Your task to perform on an android device: Search for Italian restaurants on Maps Image 0: 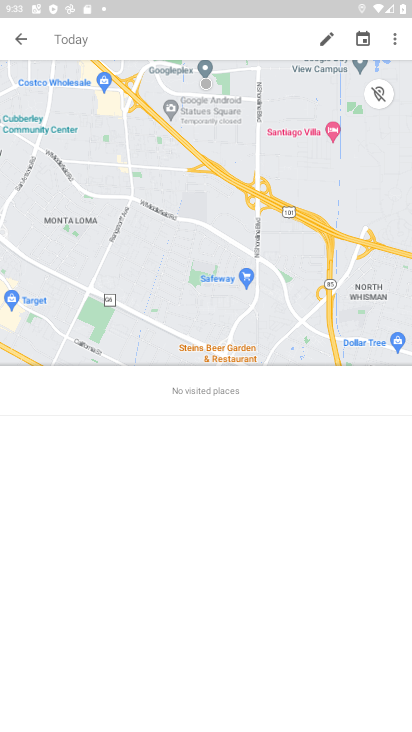
Step 0: drag from (257, 707) to (372, 0)
Your task to perform on an android device: Search for Italian restaurants on Maps Image 1: 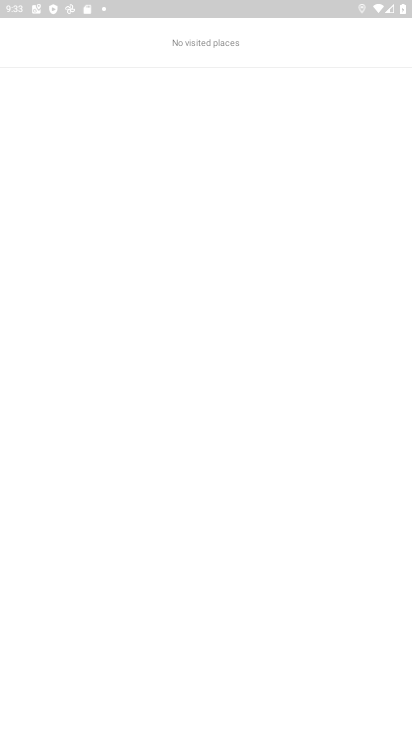
Step 1: press home button
Your task to perform on an android device: Search for Italian restaurants on Maps Image 2: 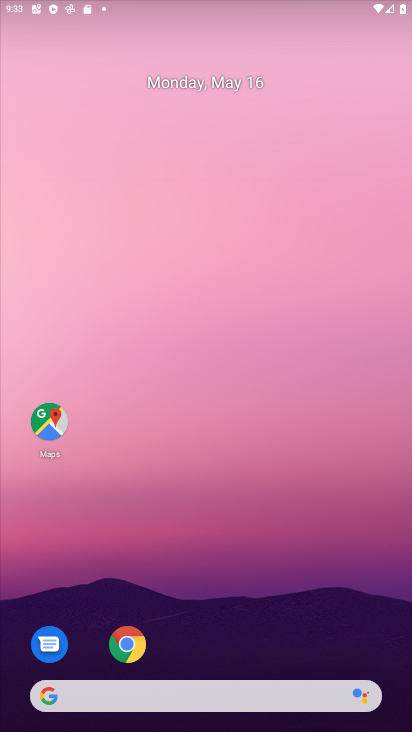
Step 2: click (49, 420)
Your task to perform on an android device: Search for Italian restaurants on Maps Image 3: 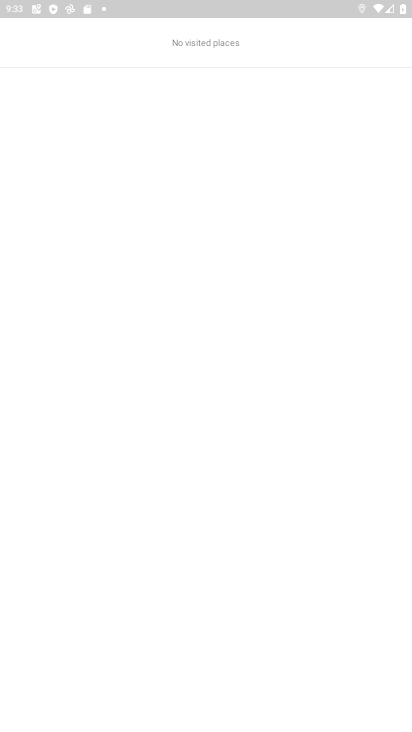
Step 3: press home button
Your task to perform on an android device: Search for Italian restaurants on Maps Image 4: 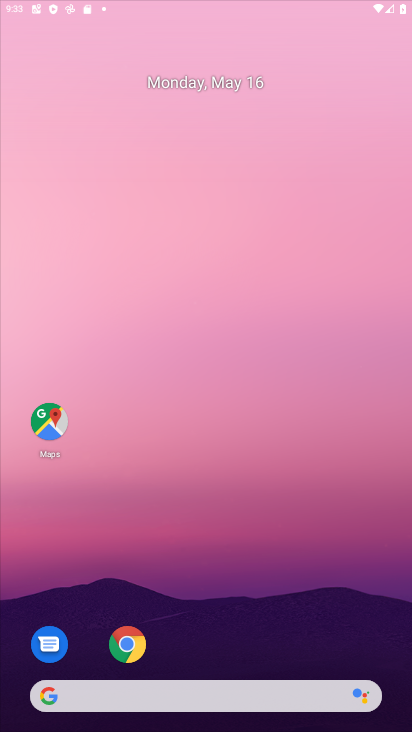
Step 4: press home button
Your task to perform on an android device: Search for Italian restaurants on Maps Image 5: 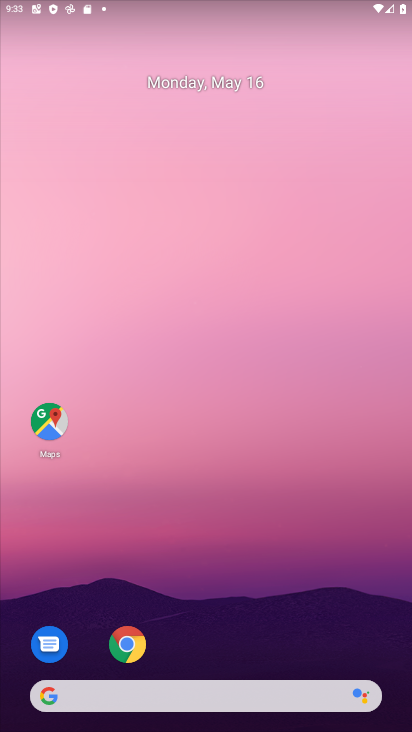
Step 5: click (55, 427)
Your task to perform on an android device: Search for Italian restaurants on Maps Image 6: 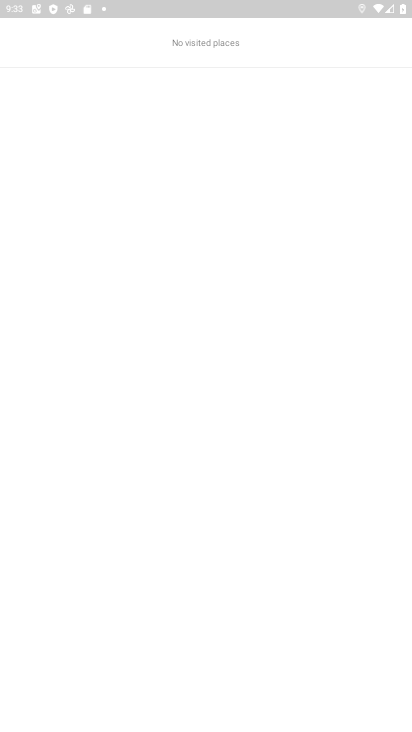
Step 6: press back button
Your task to perform on an android device: Search for Italian restaurants on Maps Image 7: 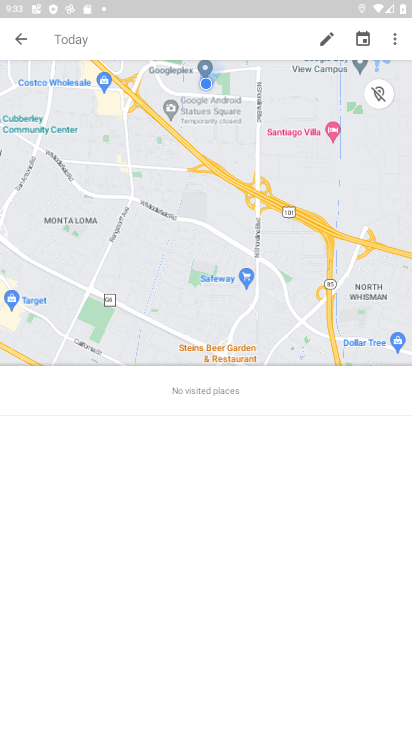
Step 7: press back button
Your task to perform on an android device: Search for Italian restaurants on Maps Image 8: 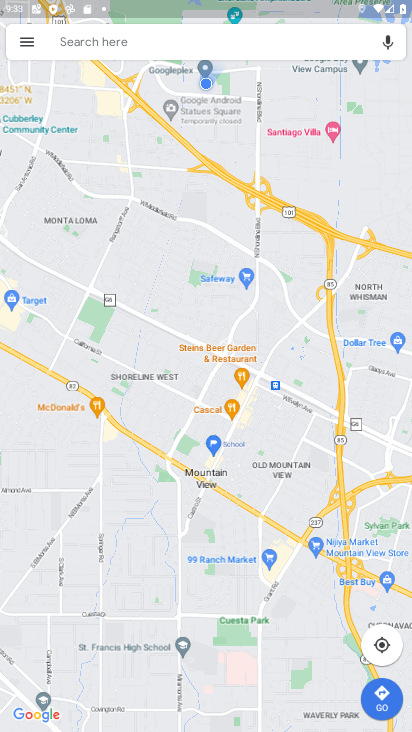
Step 8: click (132, 26)
Your task to perform on an android device: Search for Italian restaurants on Maps Image 9: 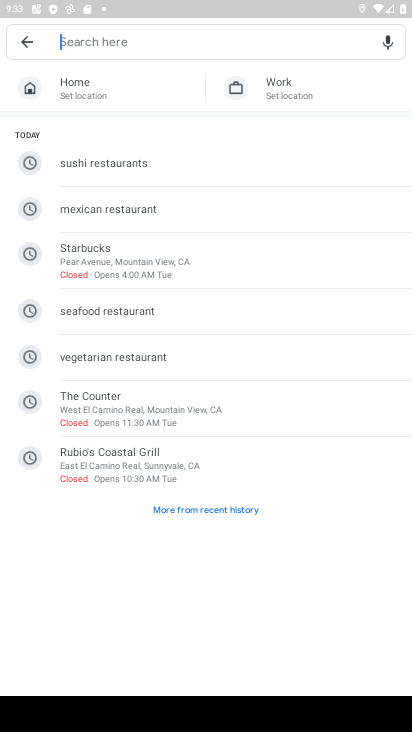
Step 9: type "italian restaurants"
Your task to perform on an android device: Search for Italian restaurants on Maps Image 10: 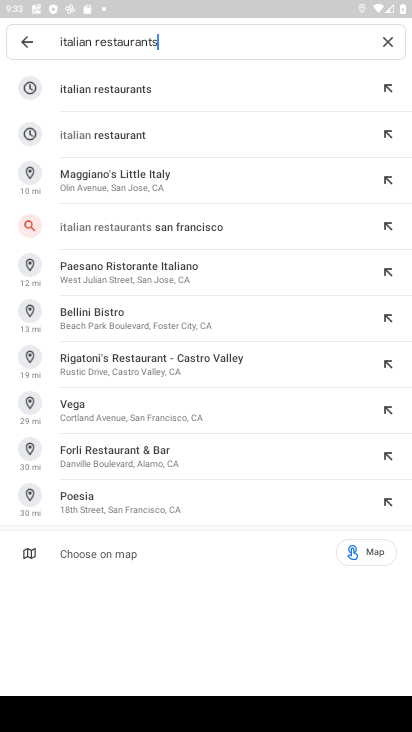
Step 10: click (203, 101)
Your task to perform on an android device: Search for Italian restaurants on Maps Image 11: 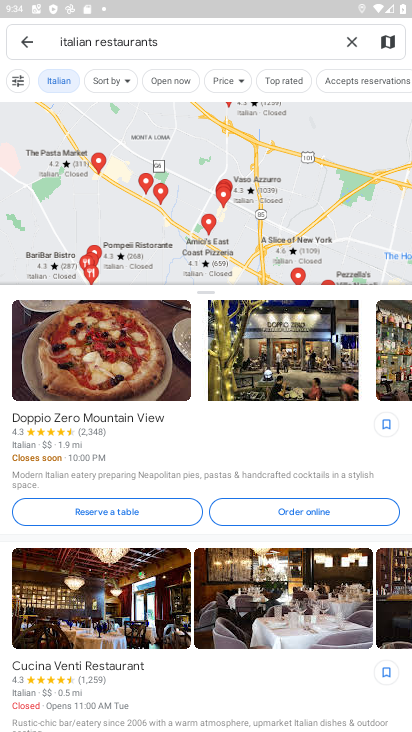
Step 11: task complete